Your task to perform on an android device: turn on showing notifications on the lock screen Image 0: 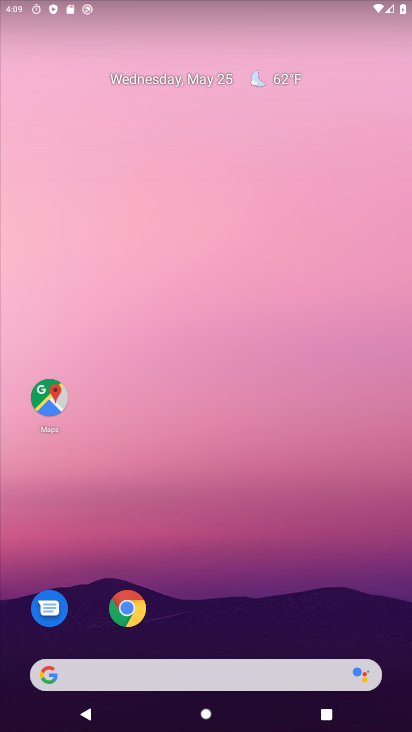
Step 0: drag from (270, 613) to (234, 163)
Your task to perform on an android device: turn on showing notifications on the lock screen Image 1: 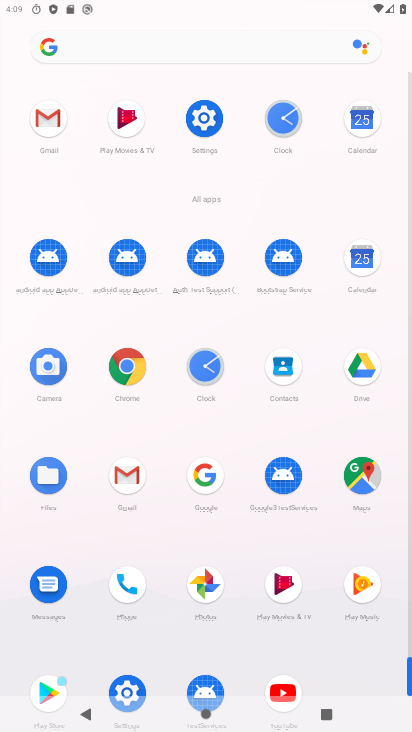
Step 1: click (206, 117)
Your task to perform on an android device: turn on showing notifications on the lock screen Image 2: 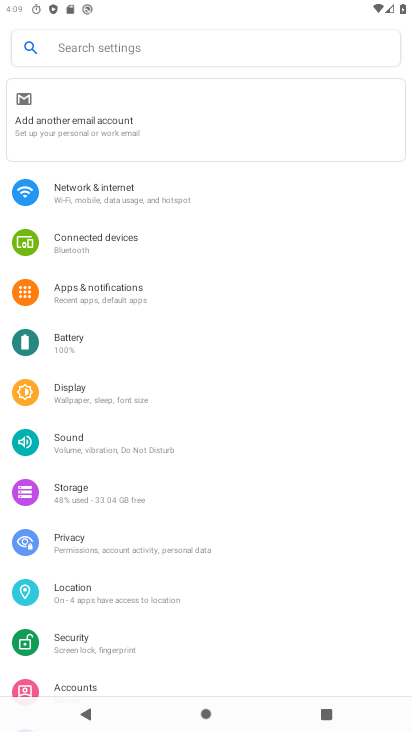
Step 2: click (83, 292)
Your task to perform on an android device: turn on showing notifications on the lock screen Image 3: 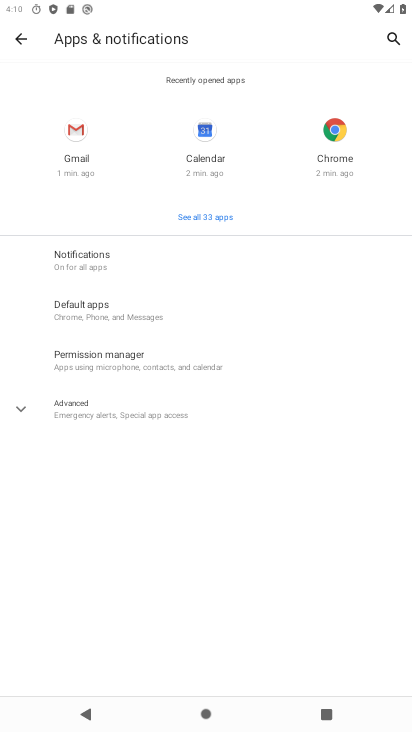
Step 3: click (75, 258)
Your task to perform on an android device: turn on showing notifications on the lock screen Image 4: 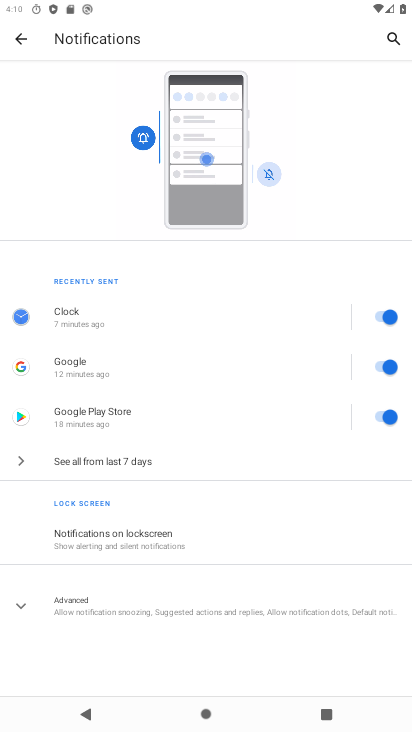
Step 4: click (99, 537)
Your task to perform on an android device: turn on showing notifications on the lock screen Image 5: 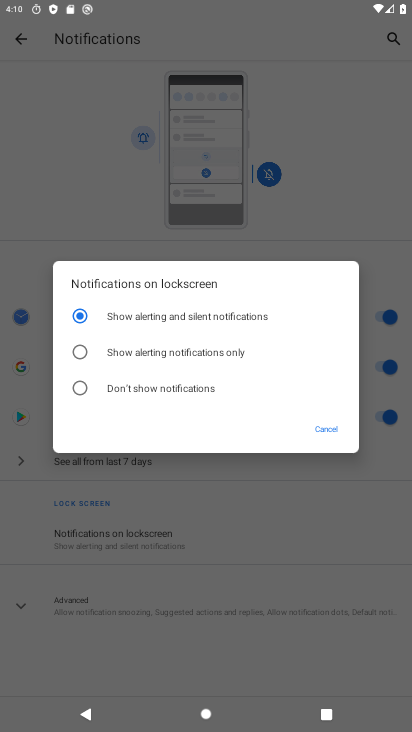
Step 5: click (79, 316)
Your task to perform on an android device: turn on showing notifications on the lock screen Image 6: 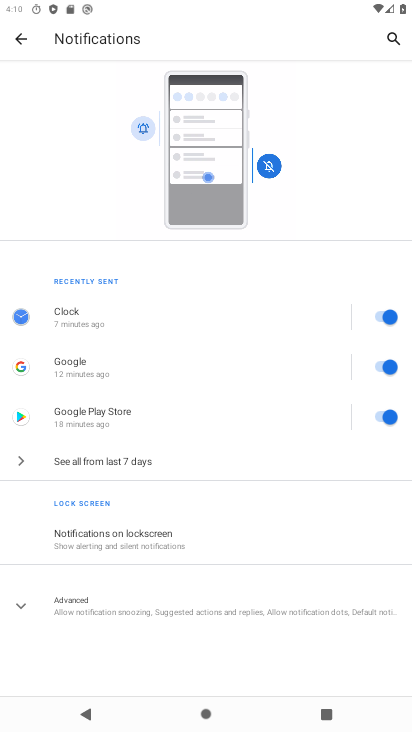
Step 6: task complete